Your task to perform on an android device: Go to Google maps Image 0: 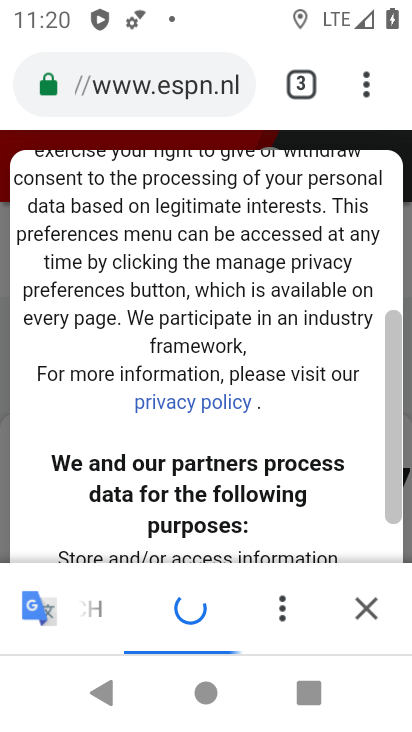
Step 0: press home button
Your task to perform on an android device: Go to Google maps Image 1: 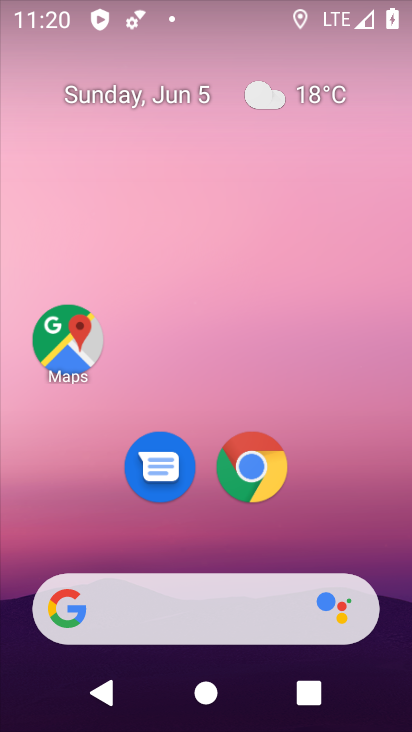
Step 1: click (67, 322)
Your task to perform on an android device: Go to Google maps Image 2: 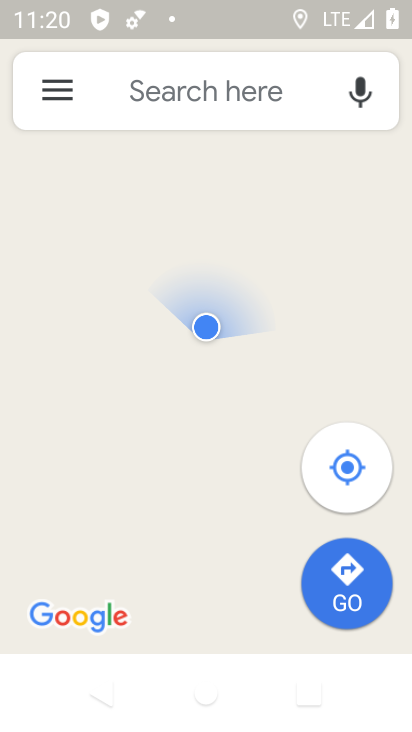
Step 2: task complete